Your task to perform on an android device: Search for sushi restaurants on Maps Image 0: 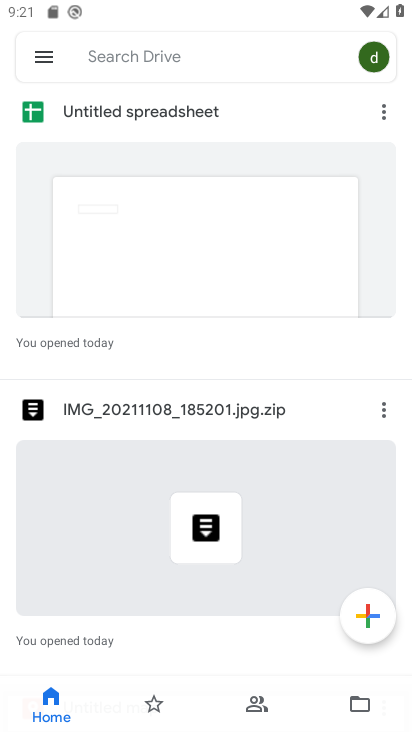
Step 0: press home button
Your task to perform on an android device: Search for sushi restaurants on Maps Image 1: 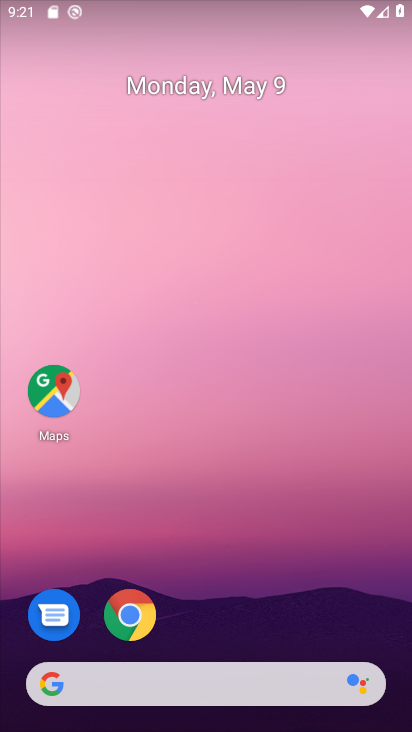
Step 1: drag from (321, 724) to (244, 305)
Your task to perform on an android device: Search for sushi restaurants on Maps Image 2: 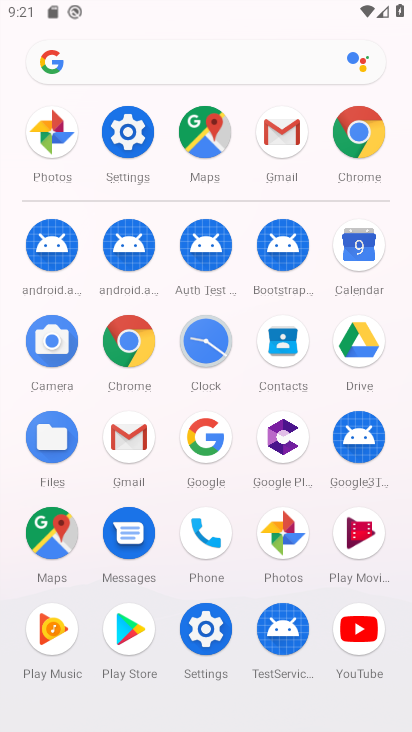
Step 2: click (189, 132)
Your task to perform on an android device: Search for sushi restaurants on Maps Image 3: 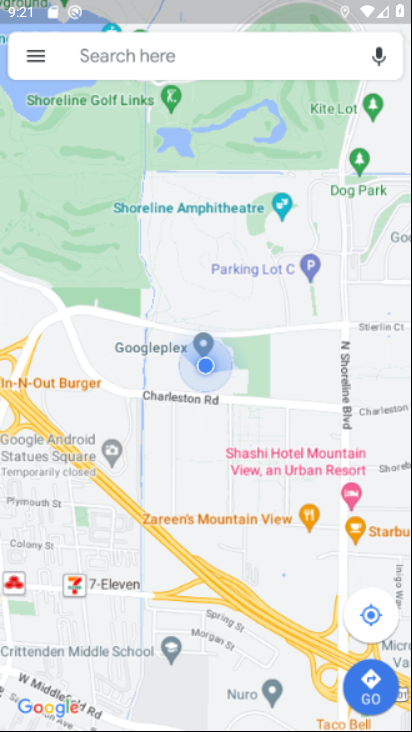
Step 3: click (139, 66)
Your task to perform on an android device: Search for sushi restaurants on Maps Image 4: 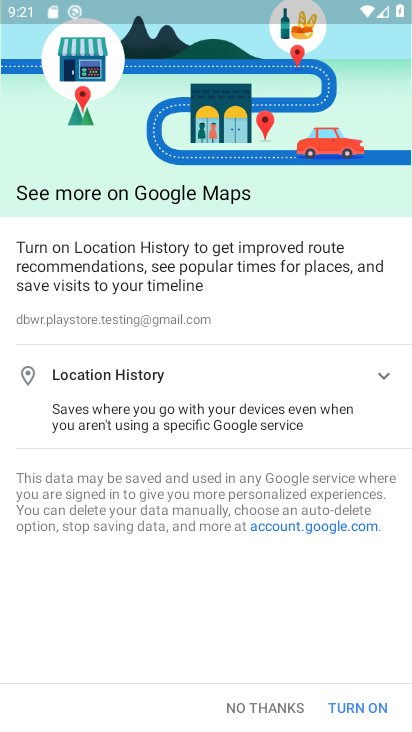
Step 4: click (269, 709)
Your task to perform on an android device: Search for sushi restaurants on Maps Image 5: 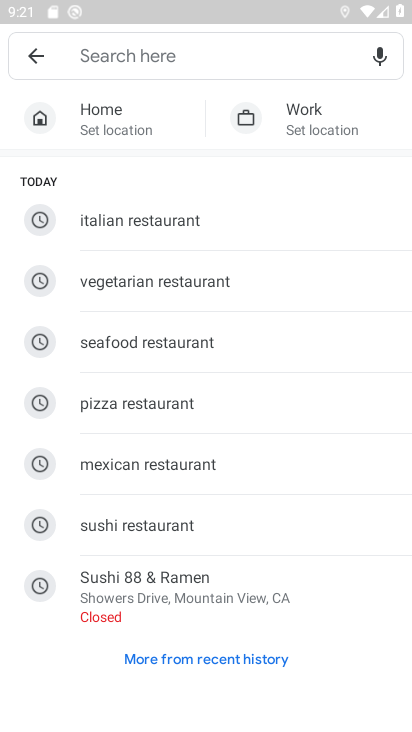
Step 5: click (124, 533)
Your task to perform on an android device: Search for sushi restaurants on Maps Image 6: 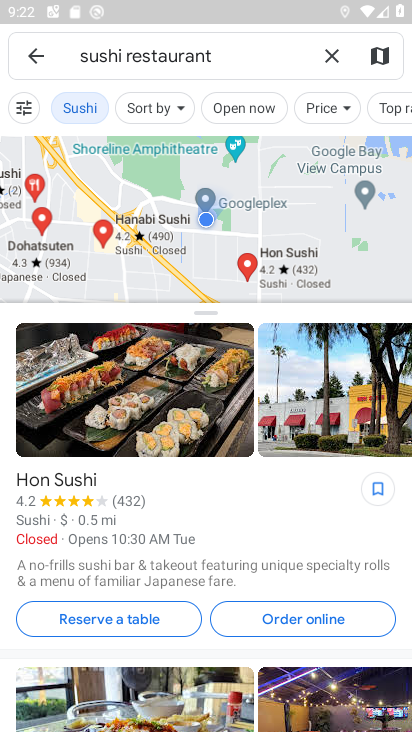
Step 6: task complete